Your task to perform on an android device: Is it going to rain this weekend? Image 0: 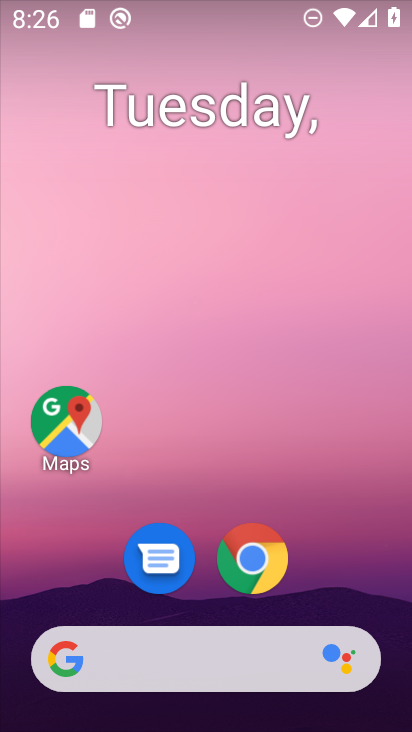
Step 0: click (209, 202)
Your task to perform on an android device: Is it going to rain this weekend? Image 1: 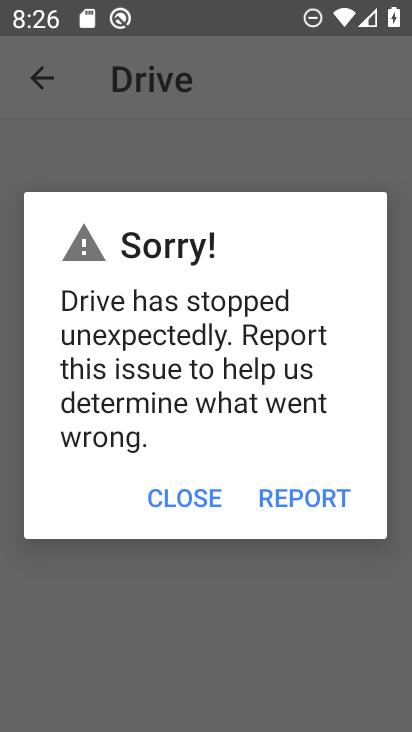
Step 1: press home button
Your task to perform on an android device: Is it going to rain this weekend? Image 2: 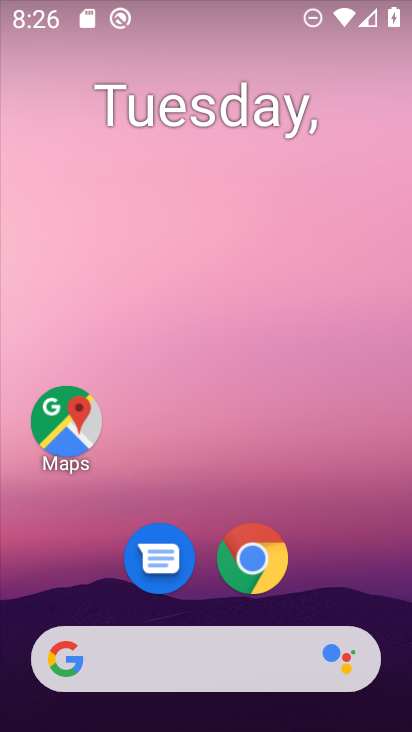
Step 2: drag from (199, 561) to (232, 201)
Your task to perform on an android device: Is it going to rain this weekend? Image 3: 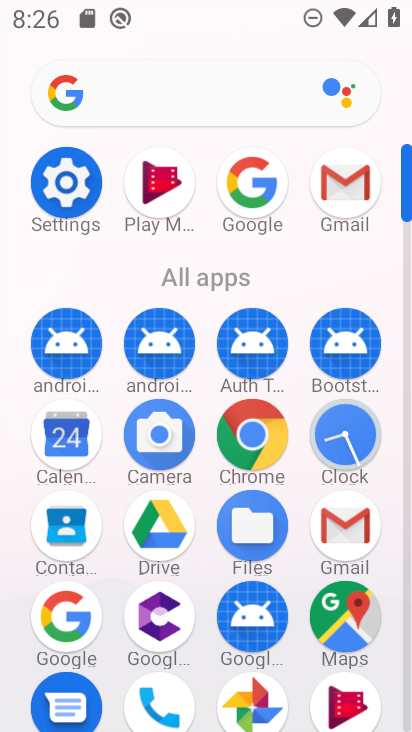
Step 3: click (240, 198)
Your task to perform on an android device: Is it going to rain this weekend? Image 4: 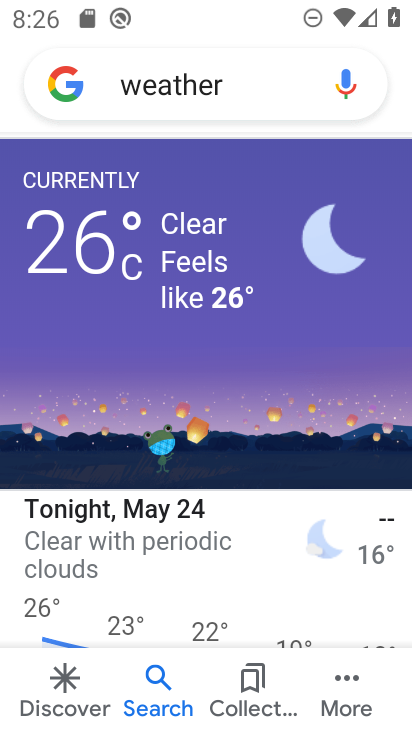
Step 4: drag from (214, 295) to (214, 496)
Your task to perform on an android device: Is it going to rain this weekend? Image 5: 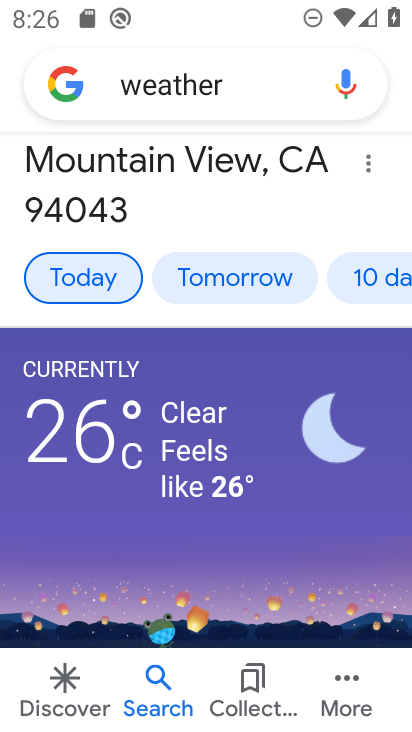
Step 5: click (342, 264)
Your task to perform on an android device: Is it going to rain this weekend? Image 6: 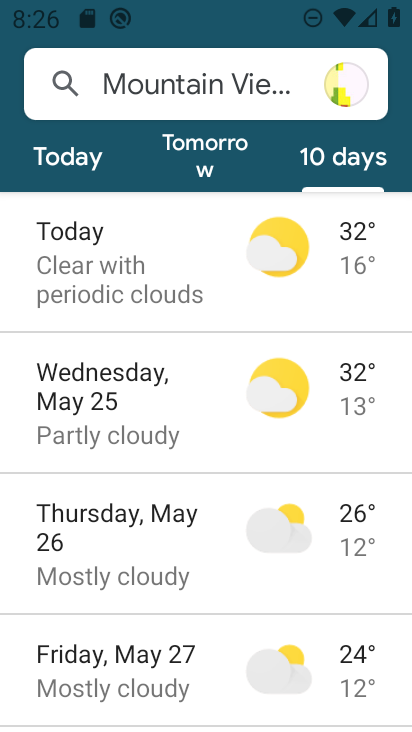
Step 6: task complete